Your task to perform on an android device: empty trash in google photos Image 0: 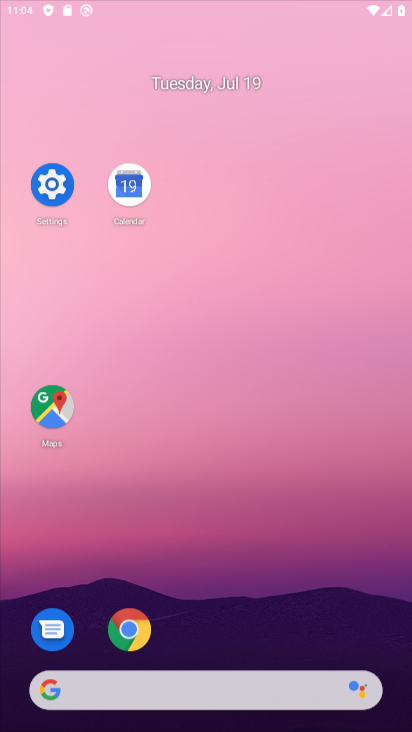
Step 0: press home button
Your task to perform on an android device: empty trash in google photos Image 1: 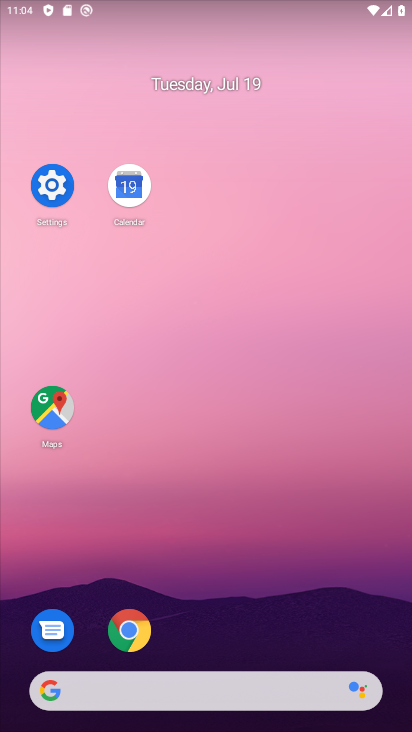
Step 1: drag from (289, 607) to (272, 240)
Your task to perform on an android device: empty trash in google photos Image 2: 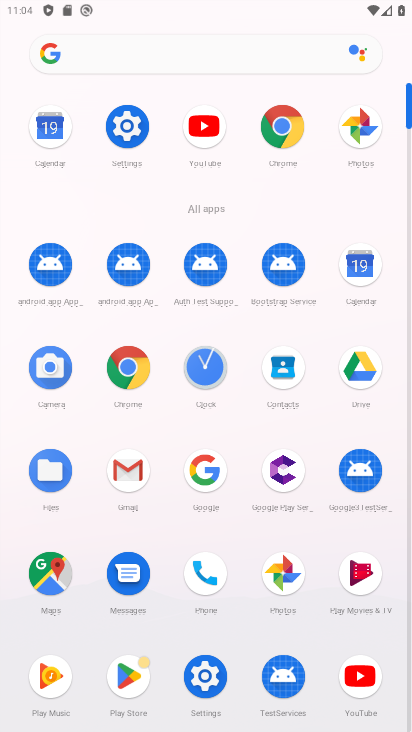
Step 2: click (363, 117)
Your task to perform on an android device: empty trash in google photos Image 3: 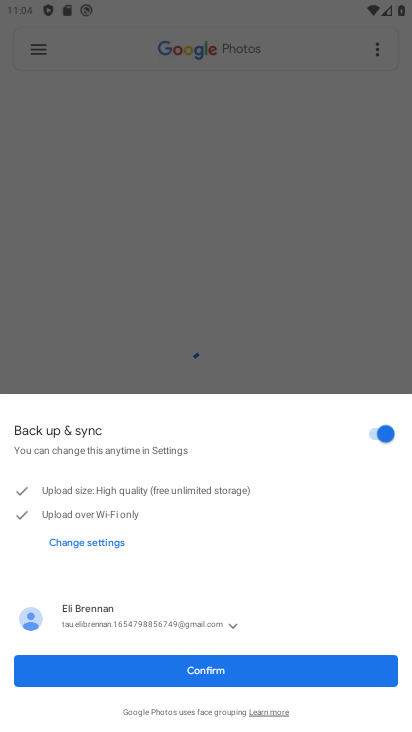
Step 3: click (196, 674)
Your task to perform on an android device: empty trash in google photos Image 4: 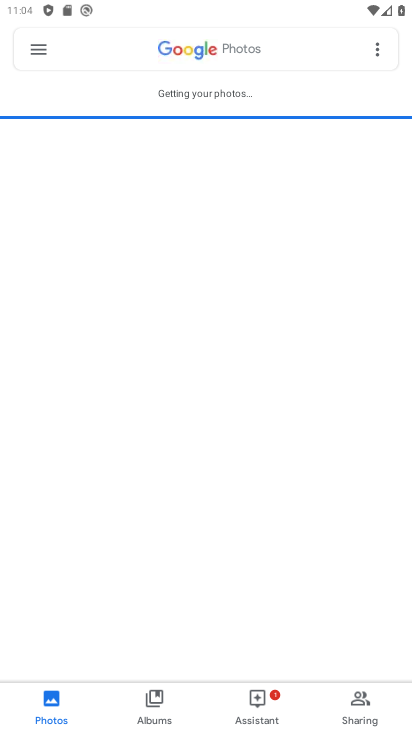
Step 4: click (43, 56)
Your task to perform on an android device: empty trash in google photos Image 5: 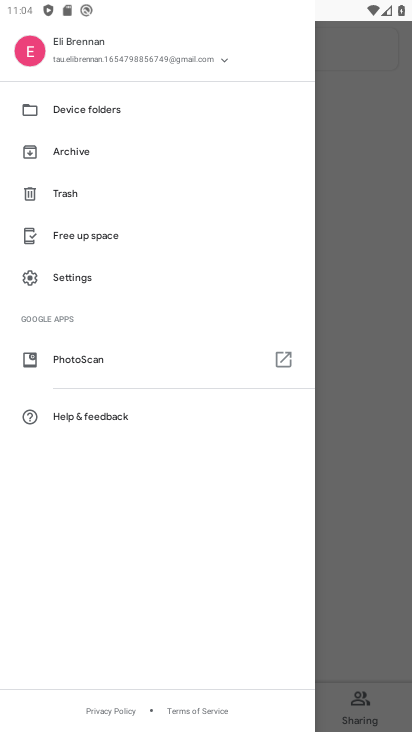
Step 5: click (58, 186)
Your task to perform on an android device: empty trash in google photos Image 6: 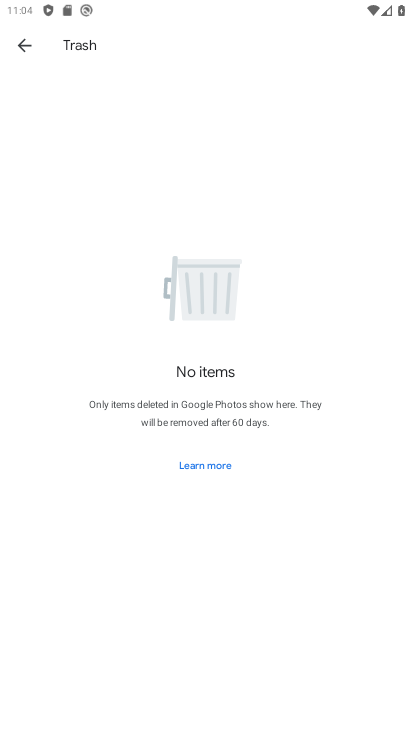
Step 6: task complete